Your task to perform on an android device: change the clock display to show seconds Image 0: 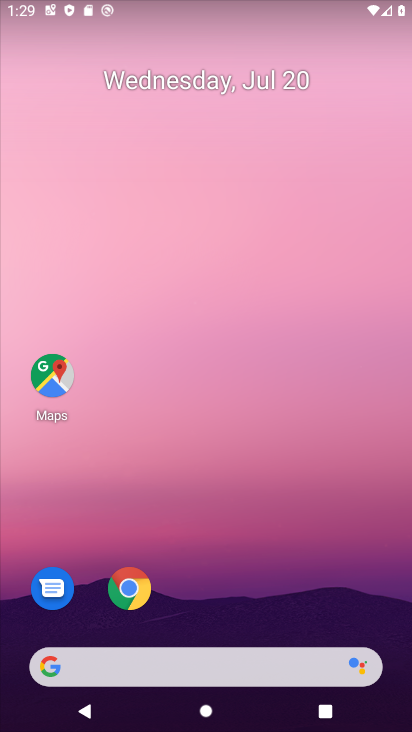
Step 0: drag from (390, 638) to (204, 23)
Your task to perform on an android device: change the clock display to show seconds Image 1: 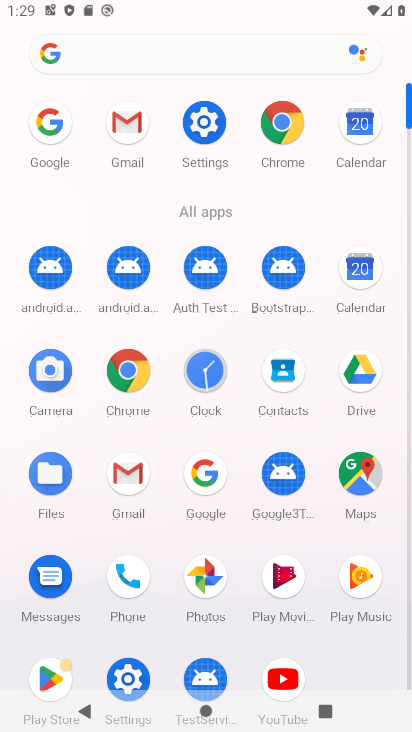
Step 1: click (204, 374)
Your task to perform on an android device: change the clock display to show seconds Image 2: 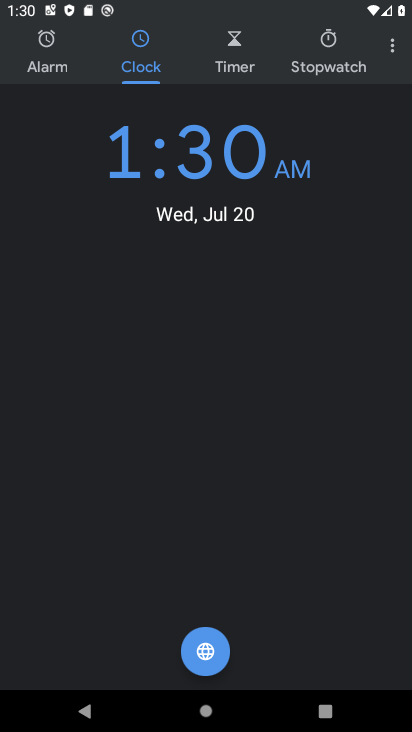
Step 2: click (393, 48)
Your task to perform on an android device: change the clock display to show seconds Image 3: 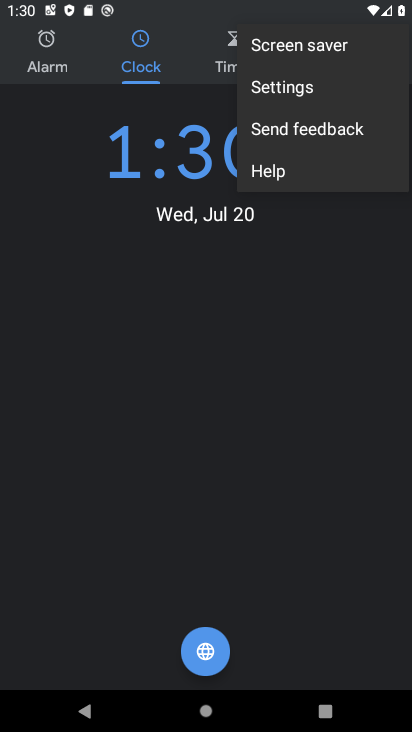
Step 3: click (300, 84)
Your task to perform on an android device: change the clock display to show seconds Image 4: 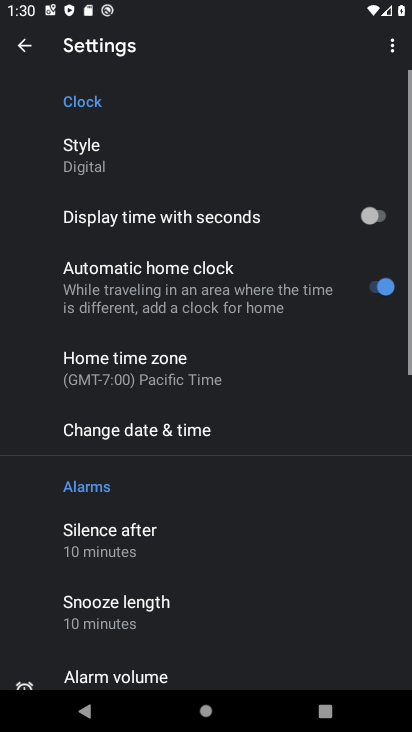
Step 4: click (349, 212)
Your task to perform on an android device: change the clock display to show seconds Image 5: 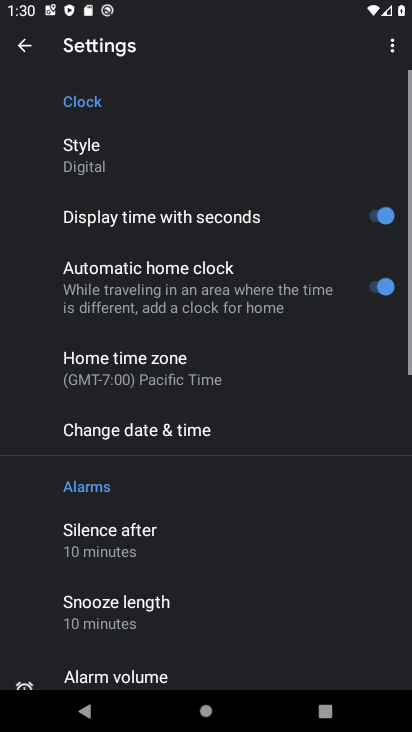
Step 5: task complete